Your task to perform on an android device: make emails show in primary in the gmail app Image 0: 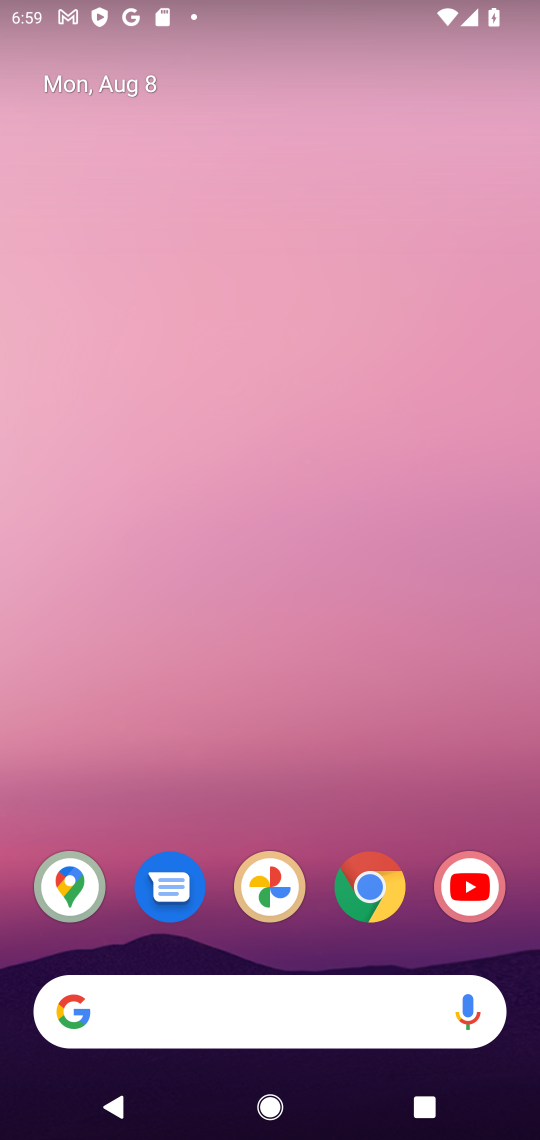
Step 0: drag from (347, 814) to (274, 145)
Your task to perform on an android device: make emails show in primary in the gmail app Image 1: 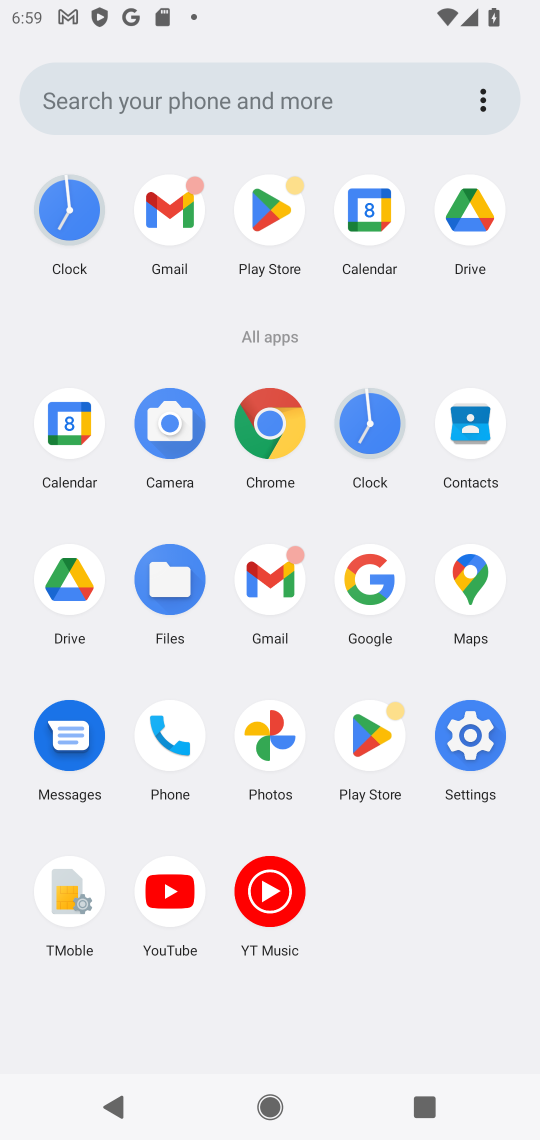
Step 1: click (186, 219)
Your task to perform on an android device: make emails show in primary in the gmail app Image 2: 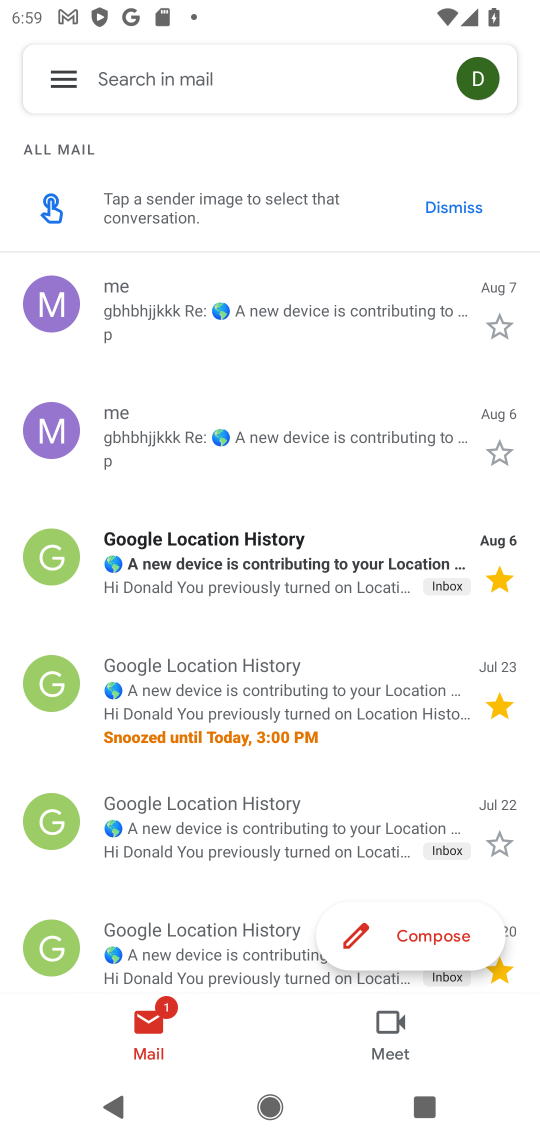
Step 2: click (56, 90)
Your task to perform on an android device: make emails show in primary in the gmail app Image 3: 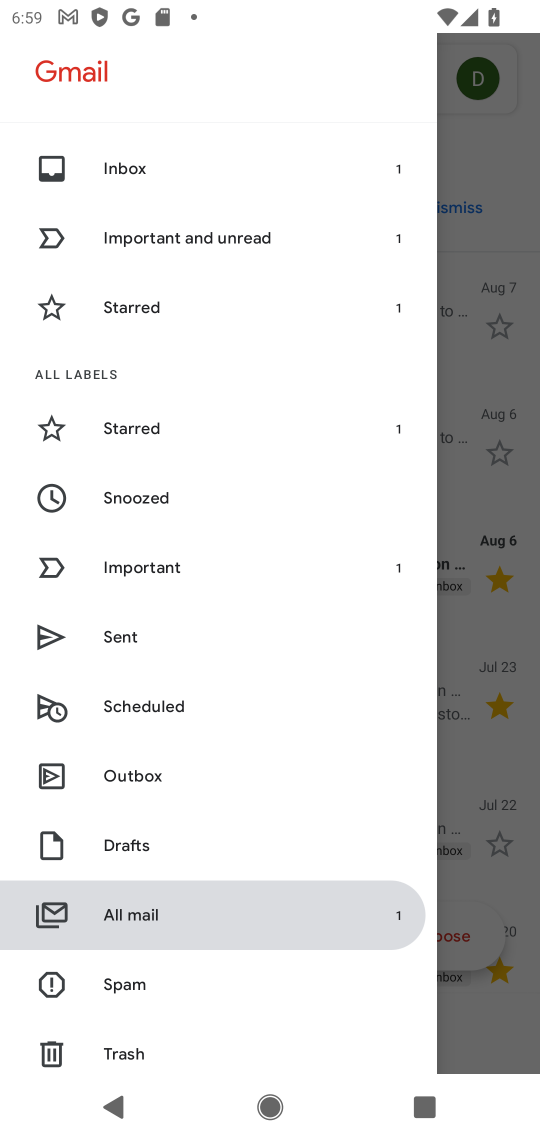
Step 3: drag from (201, 1003) to (170, 446)
Your task to perform on an android device: make emails show in primary in the gmail app Image 4: 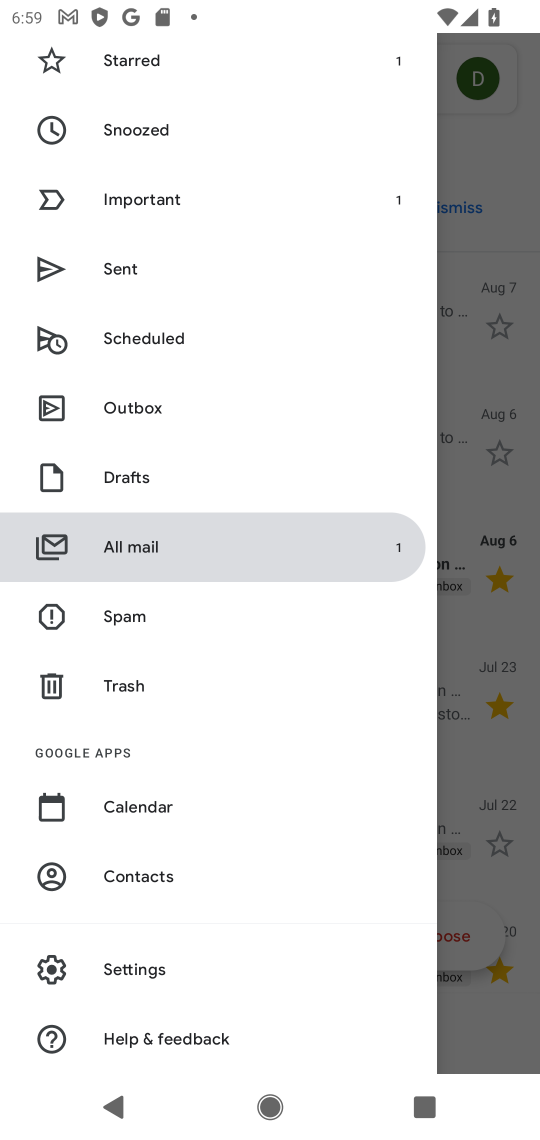
Step 4: click (184, 981)
Your task to perform on an android device: make emails show in primary in the gmail app Image 5: 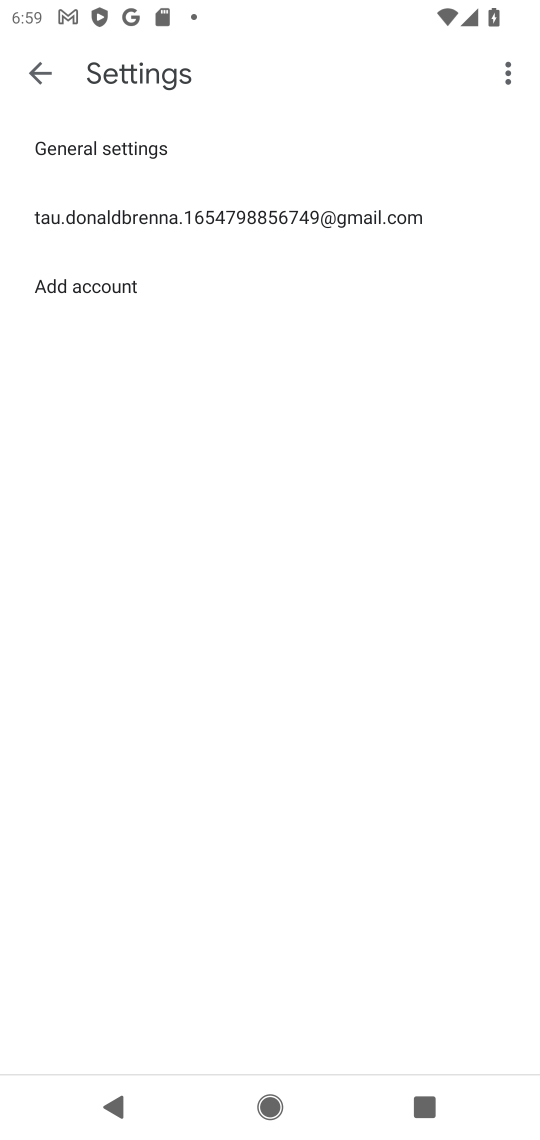
Step 5: click (191, 244)
Your task to perform on an android device: make emails show in primary in the gmail app Image 6: 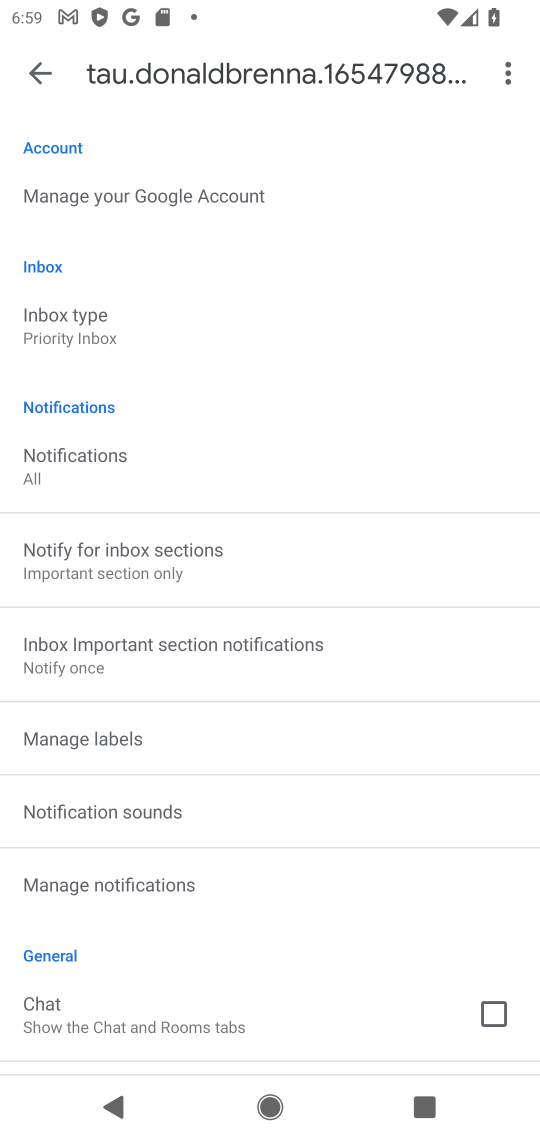
Step 6: click (203, 332)
Your task to perform on an android device: make emails show in primary in the gmail app Image 7: 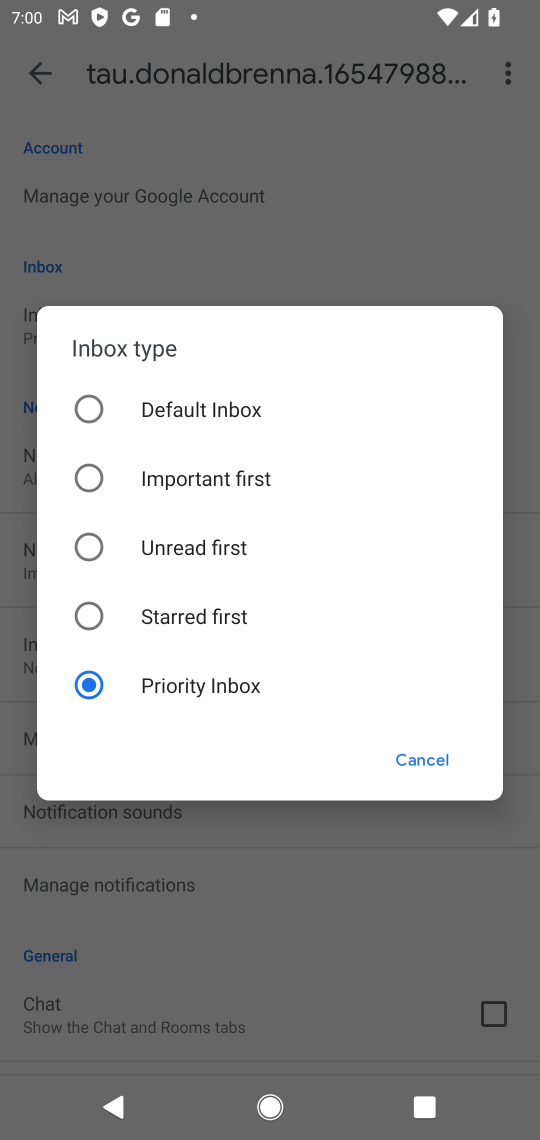
Step 7: click (211, 420)
Your task to perform on an android device: make emails show in primary in the gmail app Image 8: 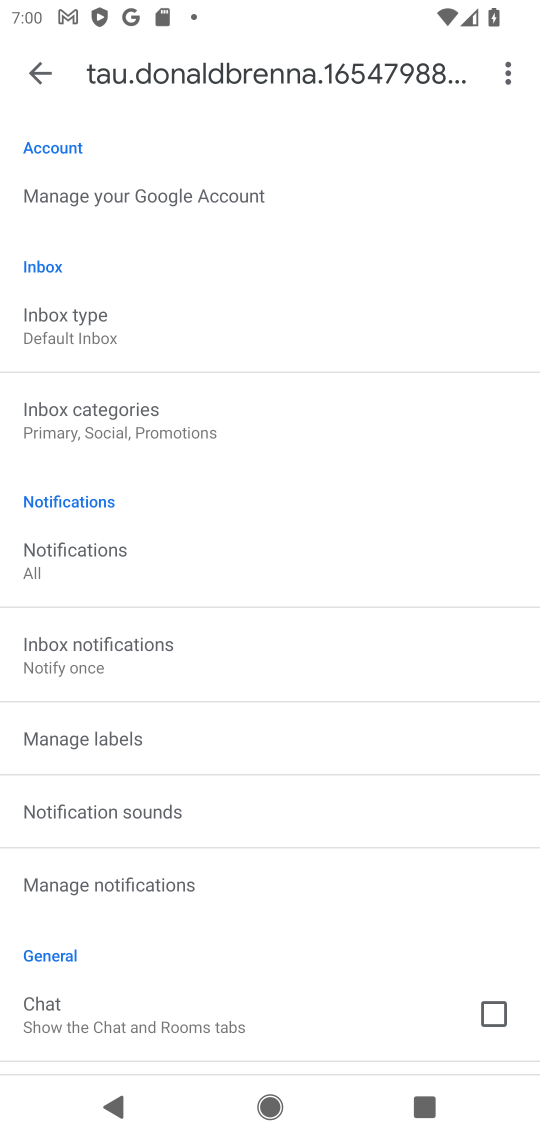
Step 8: task complete